Your task to perform on an android device: Open internet settings Image 0: 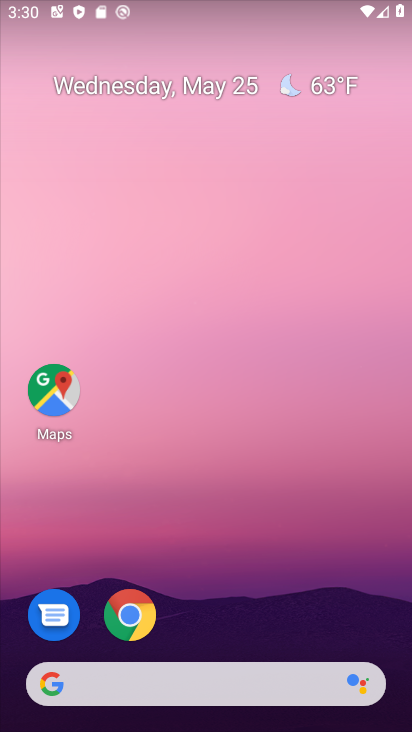
Step 0: drag from (311, 585) to (238, 143)
Your task to perform on an android device: Open internet settings Image 1: 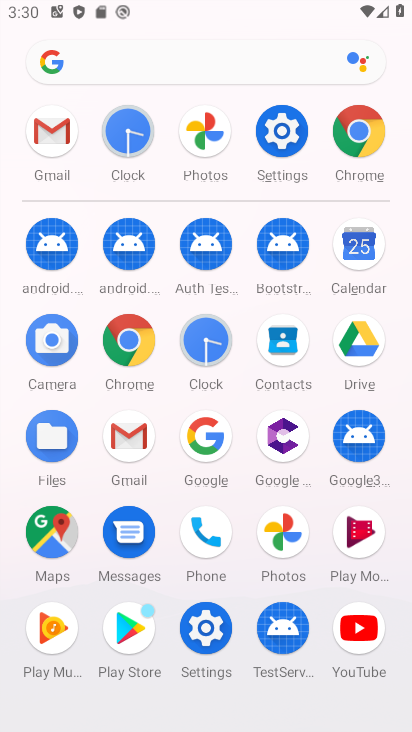
Step 1: click (282, 142)
Your task to perform on an android device: Open internet settings Image 2: 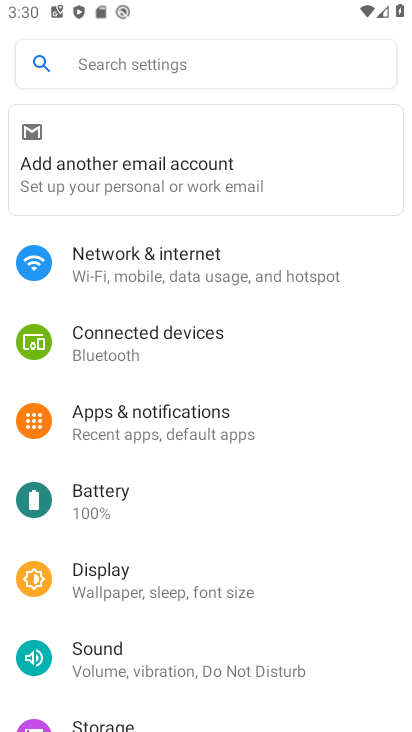
Step 2: click (140, 251)
Your task to perform on an android device: Open internet settings Image 3: 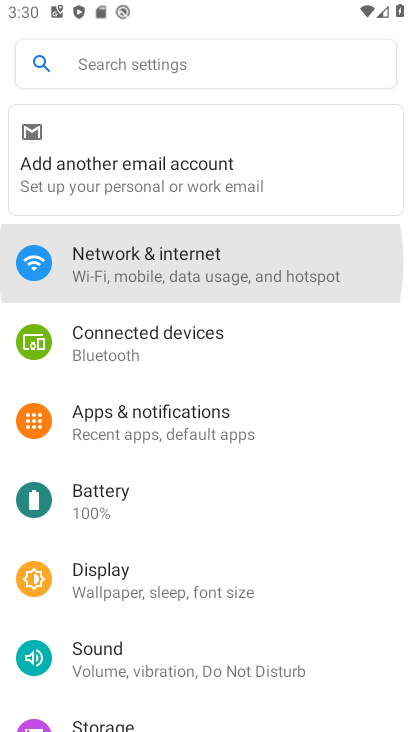
Step 3: click (141, 251)
Your task to perform on an android device: Open internet settings Image 4: 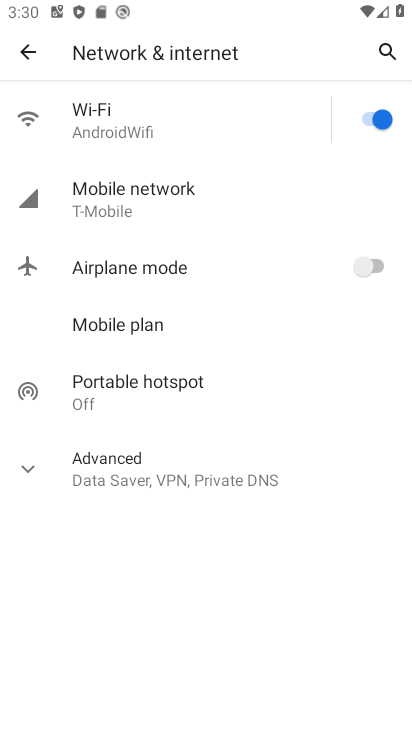
Step 4: task complete